Your task to perform on an android device: delete browsing data in the chrome app Image 0: 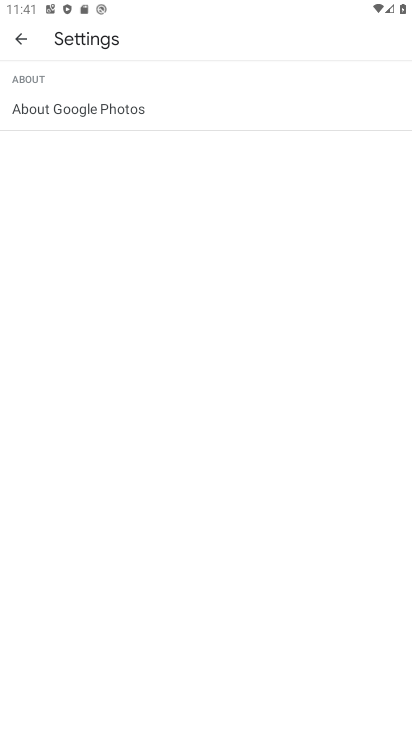
Step 0: press home button
Your task to perform on an android device: delete browsing data in the chrome app Image 1: 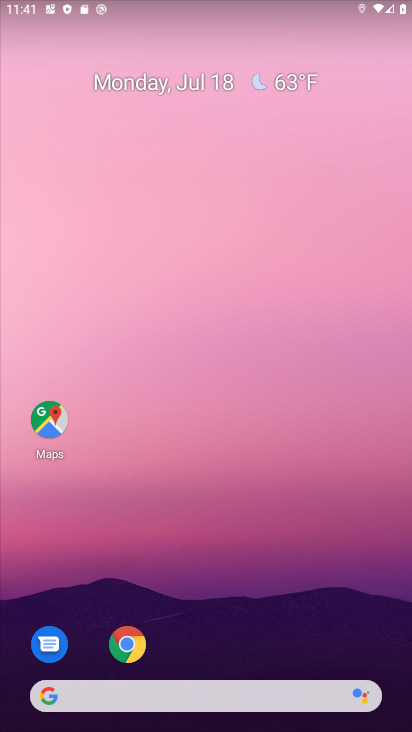
Step 1: click (128, 641)
Your task to perform on an android device: delete browsing data in the chrome app Image 2: 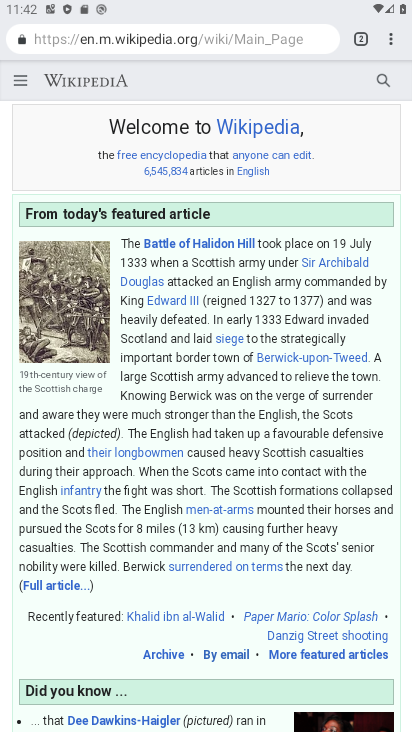
Step 2: click (390, 43)
Your task to perform on an android device: delete browsing data in the chrome app Image 3: 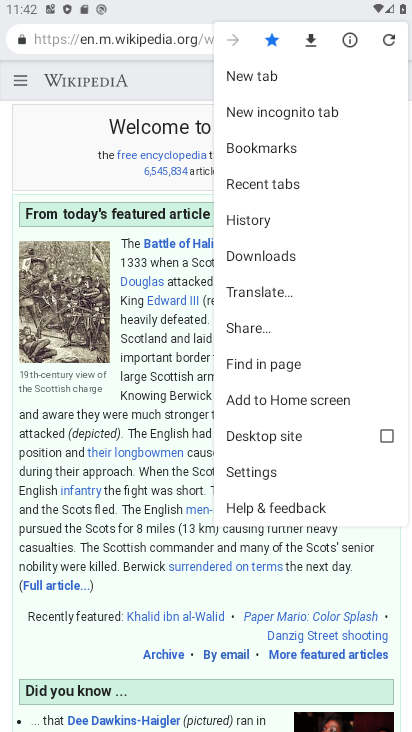
Step 3: click (248, 220)
Your task to perform on an android device: delete browsing data in the chrome app Image 4: 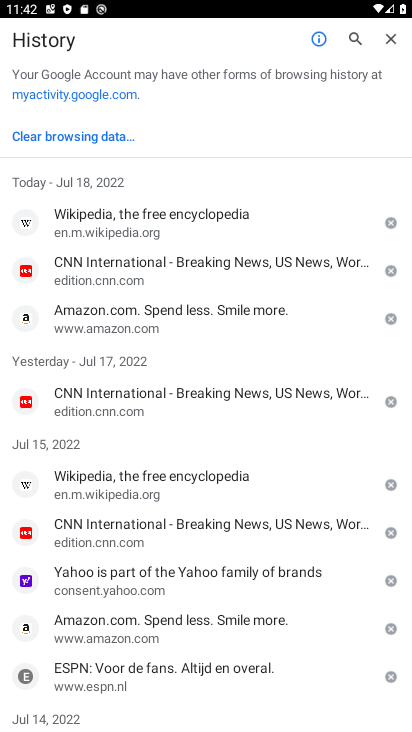
Step 4: click (86, 140)
Your task to perform on an android device: delete browsing data in the chrome app Image 5: 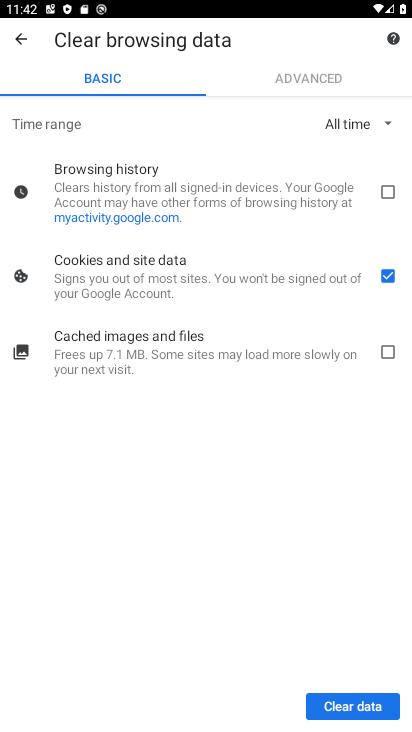
Step 5: click (387, 184)
Your task to perform on an android device: delete browsing data in the chrome app Image 6: 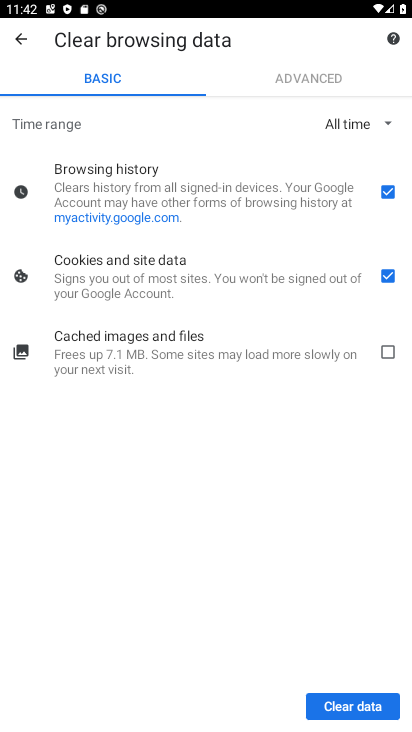
Step 6: click (386, 272)
Your task to perform on an android device: delete browsing data in the chrome app Image 7: 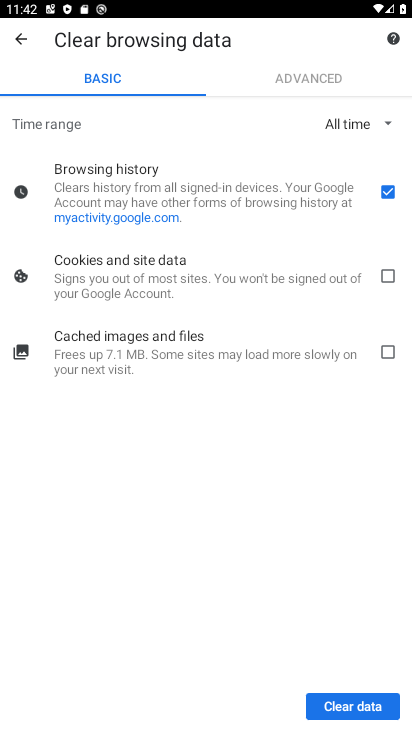
Step 7: click (350, 703)
Your task to perform on an android device: delete browsing data in the chrome app Image 8: 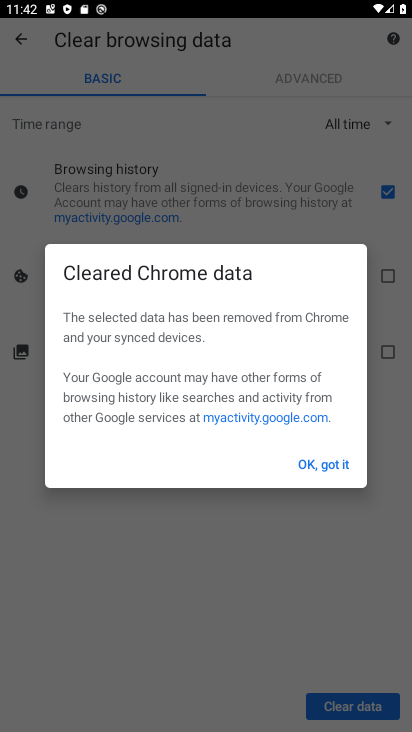
Step 8: click (326, 461)
Your task to perform on an android device: delete browsing data in the chrome app Image 9: 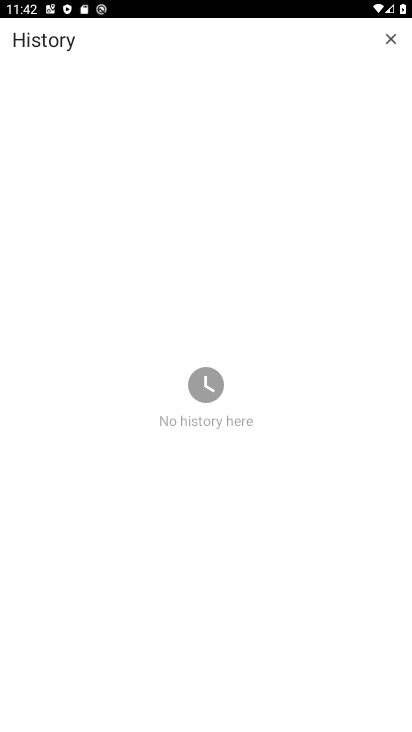
Step 9: task complete